Your task to perform on an android device: Open the Play Movies app and select the watchlist tab. Image 0: 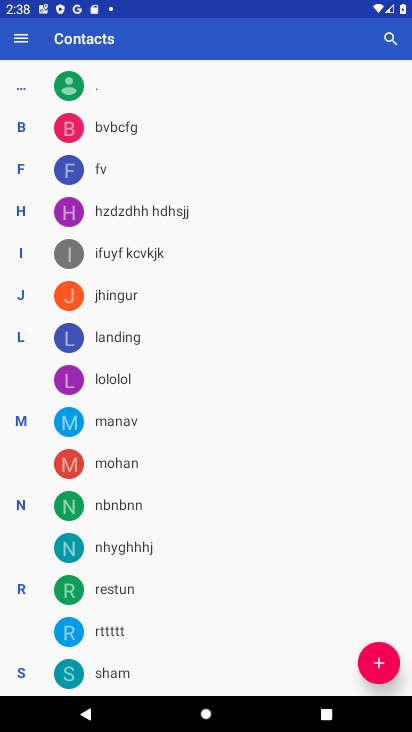
Step 0: press home button
Your task to perform on an android device: Open the Play Movies app and select the watchlist tab. Image 1: 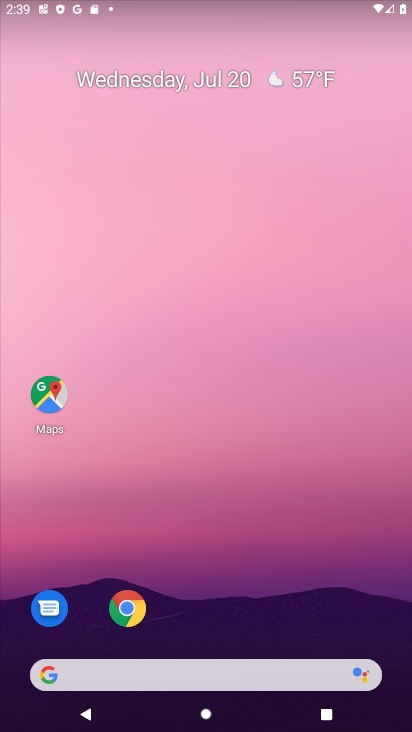
Step 1: drag from (202, 579) to (193, 324)
Your task to perform on an android device: Open the Play Movies app and select the watchlist tab. Image 2: 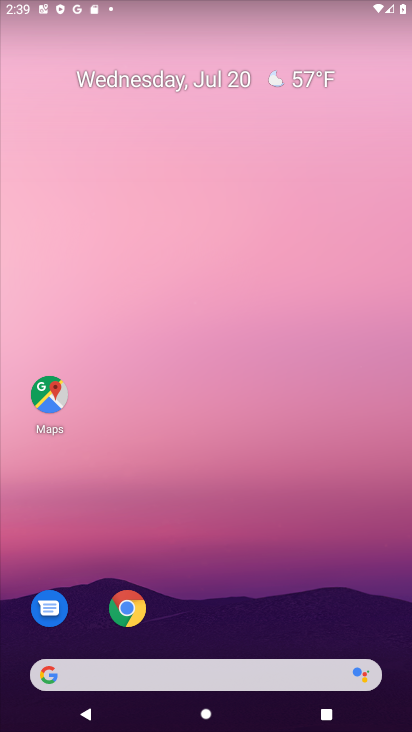
Step 2: drag from (190, 611) to (190, 283)
Your task to perform on an android device: Open the Play Movies app and select the watchlist tab. Image 3: 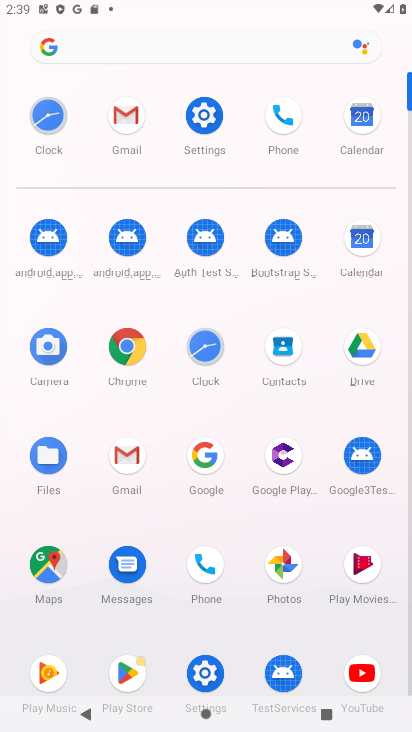
Step 3: click (340, 575)
Your task to perform on an android device: Open the Play Movies app and select the watchlist tab. Image 4: 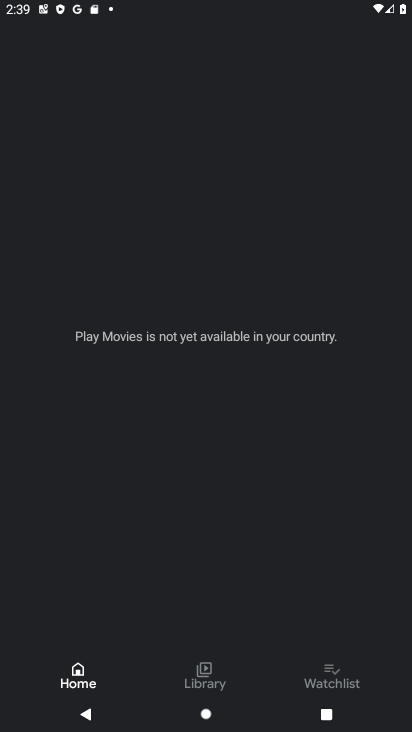
Step 4: click (335, 695)
Your task to perform on an android device: Open the Play Movies app and select the watchlist tab. Image 5: 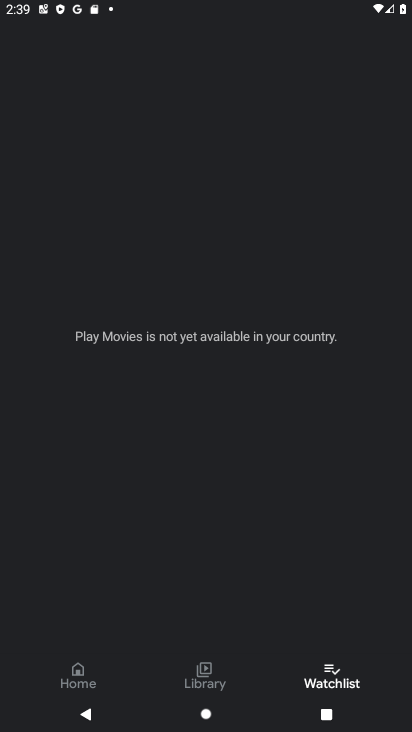
Step 5: task complete